Your task to perform on an android device: delete the emails in spam in the gmail app Image 0: 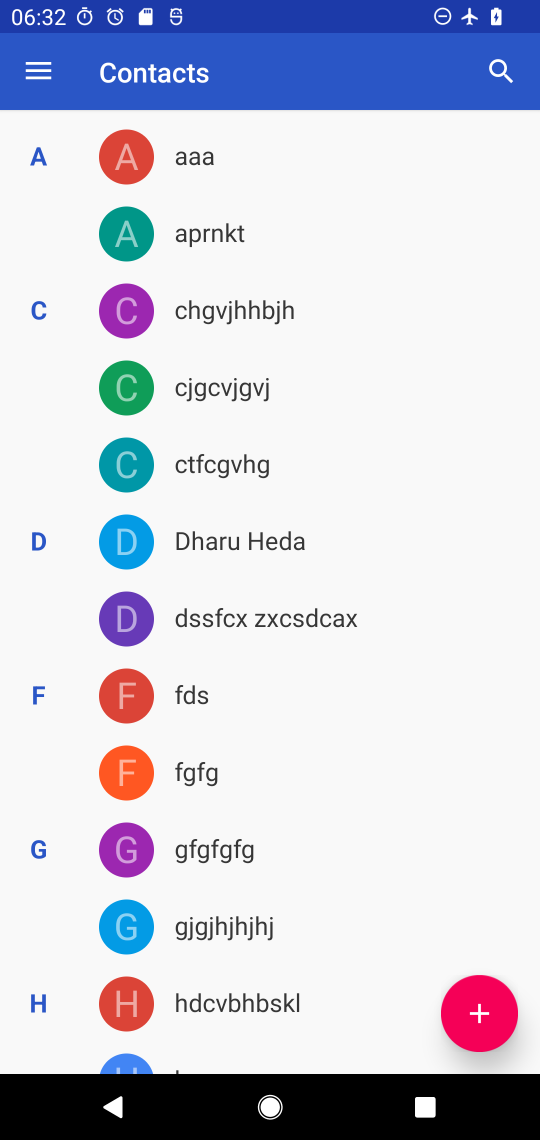
Step 0: press home button
Your task to perform on an android device: delete the emails in spam in the gmail app Image 1: 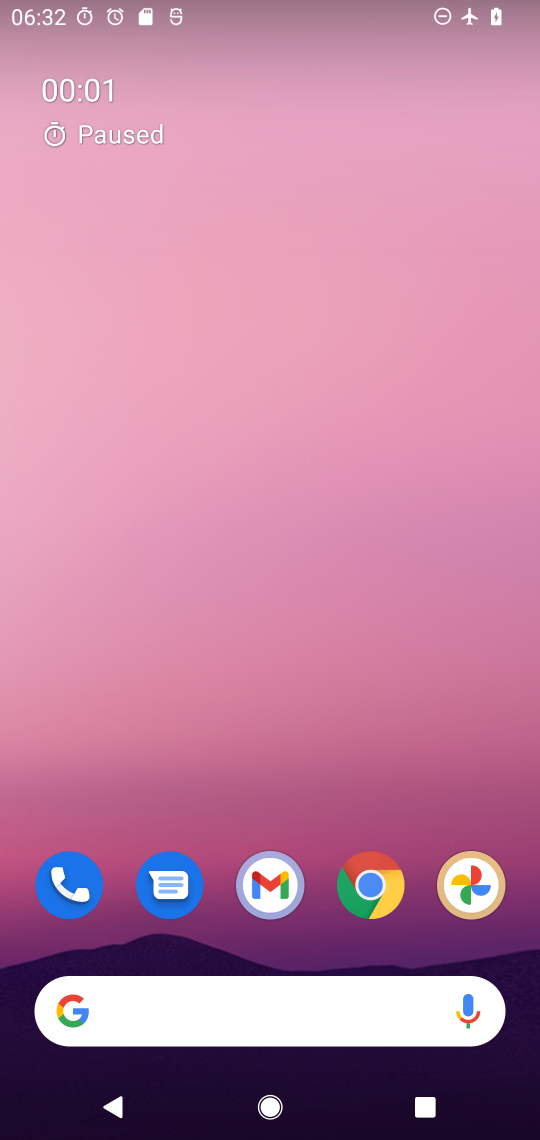
Step 1: drag from (206, 929) to (223, 77)
Your task to perform on an android device: delete the emails in spam in the gmail app Image 2: 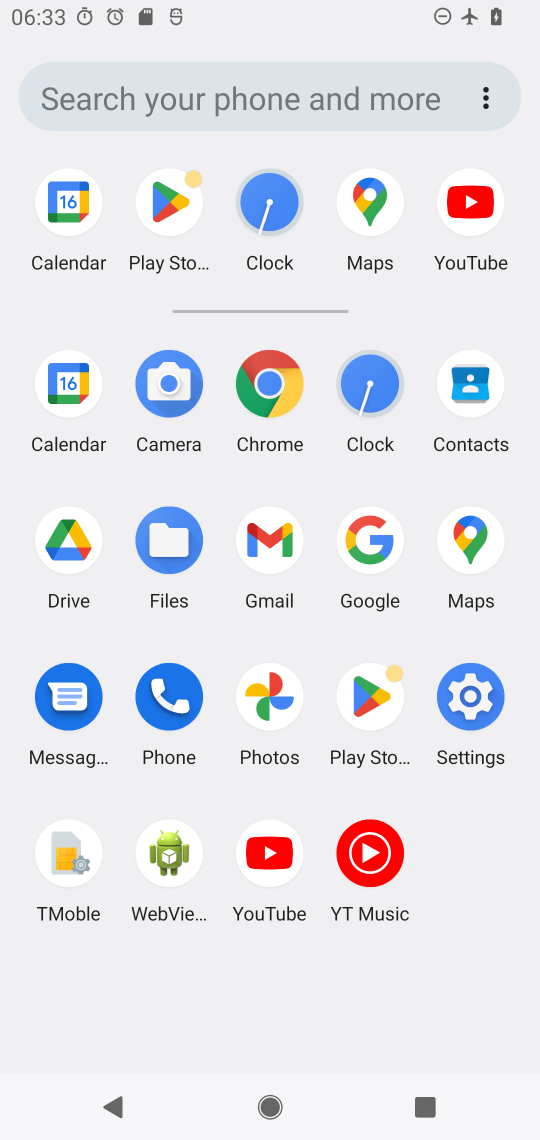
Step 2: click (265, 538)
Your task to perform on an android device: delete the emails in spam in the gmail app Image 3: 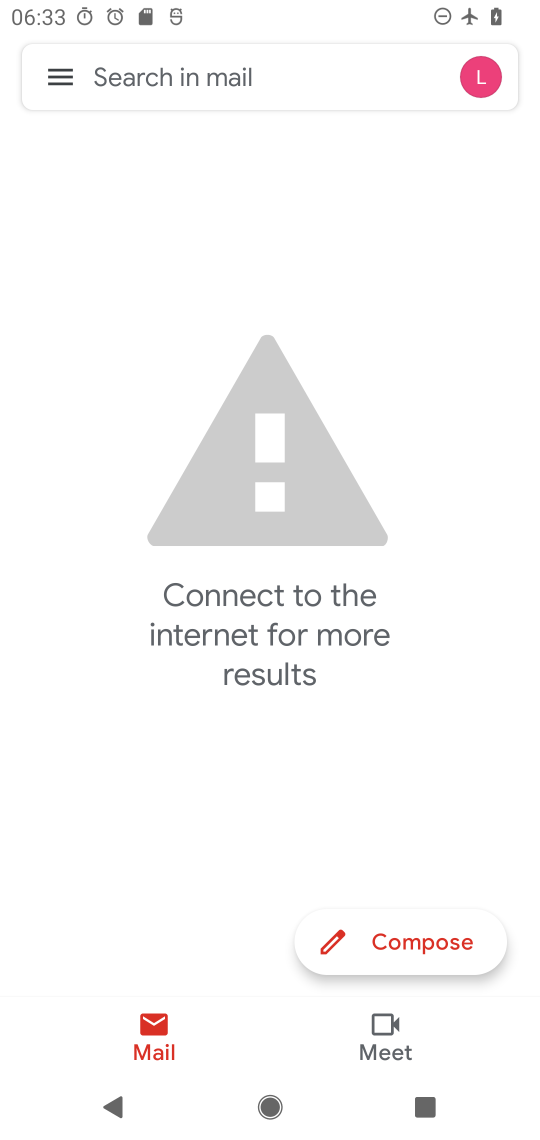
Step 3: click (38, 62)
Your task to perform on an android device: delete the emails in spam in the gmail app Image 4: 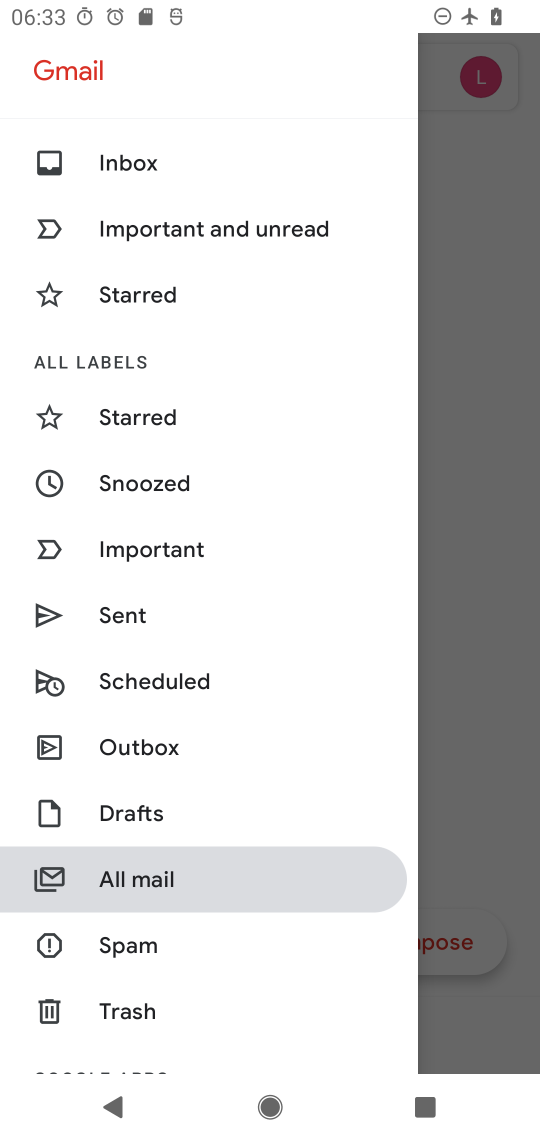
Step 4: click (157, 875)
Your task to perform on an android device: delete the emails in spam in the gmail app Image 5: 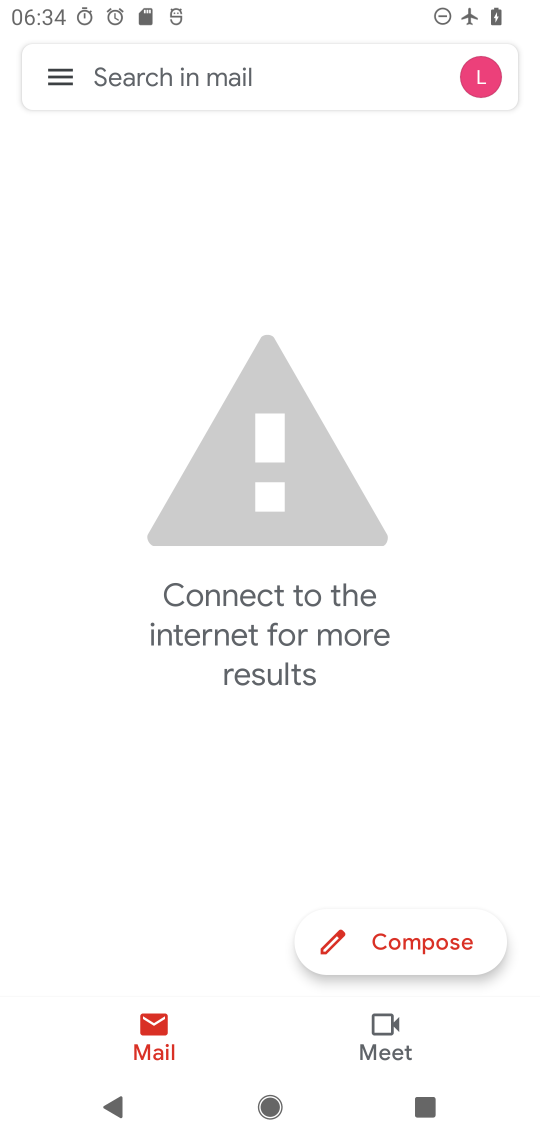
Step 5: click (56, 63)
Your task to perform on an android device: delete the emails in spam in the gmail app Image 6: 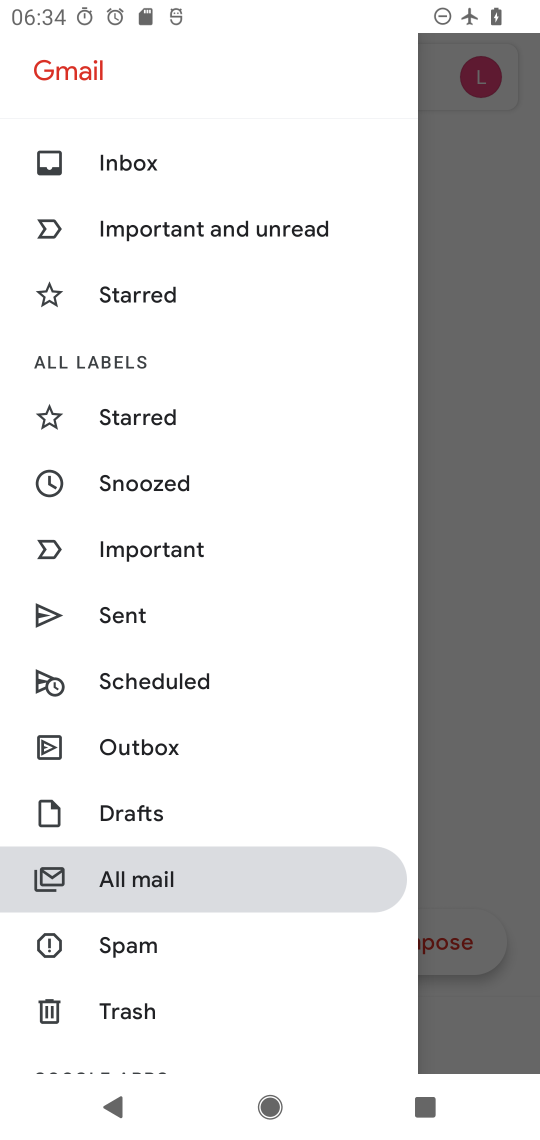
Step 6: click (189, 883)
Your task to perform on an android device: delete the emails in spam in the gmail app Image 7: 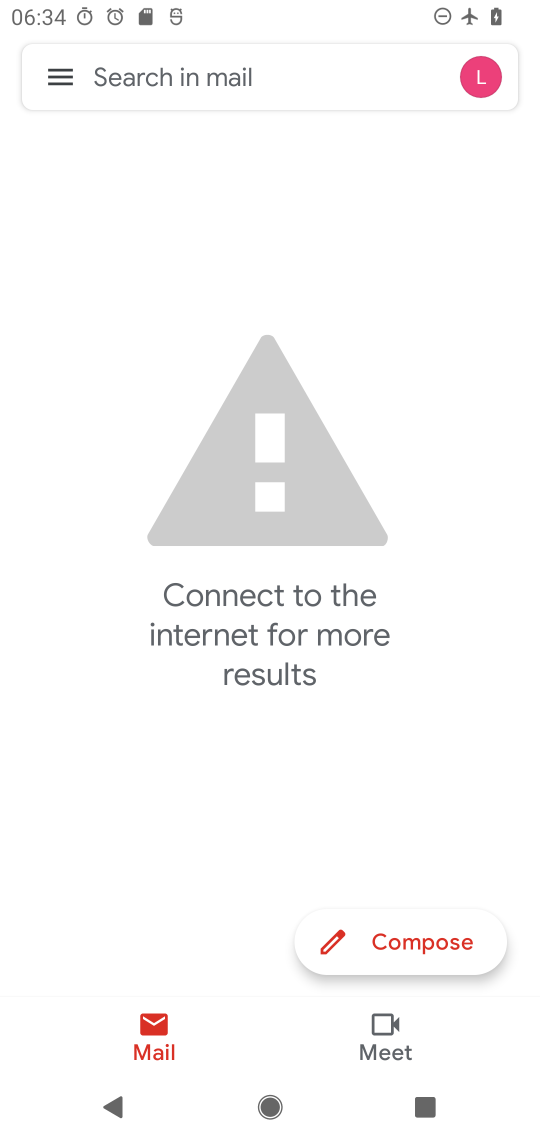
Step 7: task complete